Your task to perform on an android device: Open sound settings Image 0: 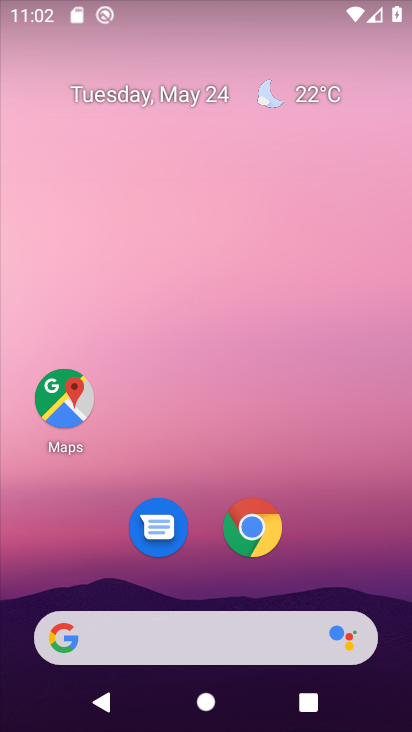
Step 0: press home button
Your task to perform on an android device: Open sound settings Image 1: 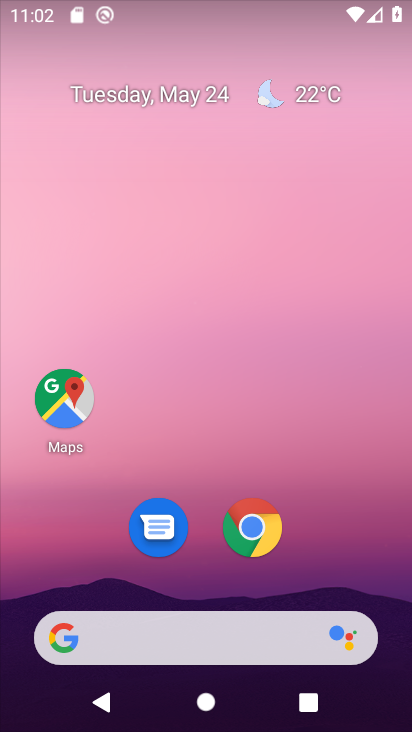
Step 1: drag from (148, 642) to (323, 92)
Your task to perform on an android device: Open sound settings Image 2: 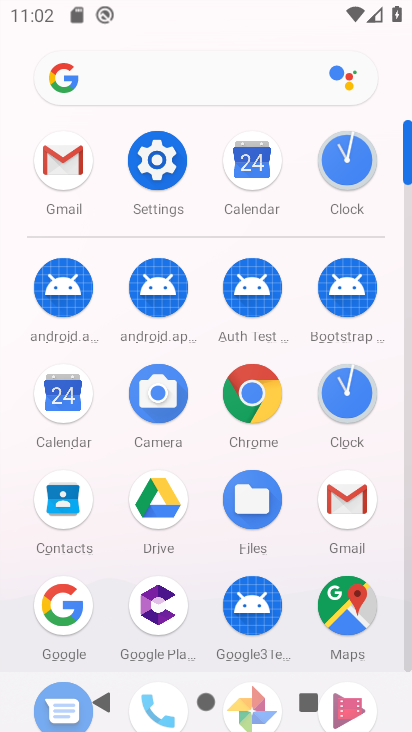
Step 2: click (172, 174)
Your task to perform on an android device: Open sound settings Image 3: 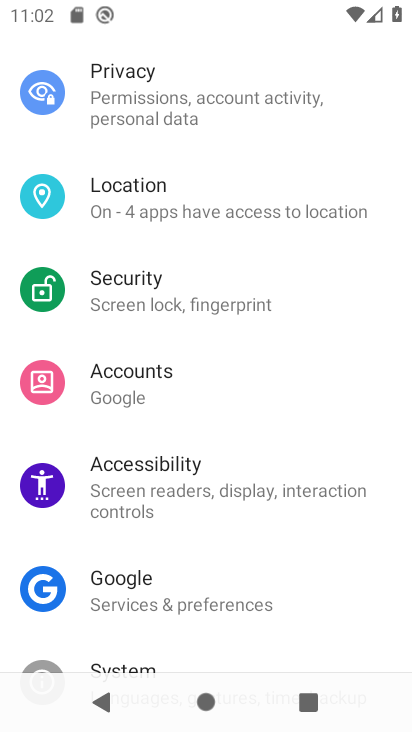
Step 3: drag from (314, 129) to (233, 573)
Your task to perform on an android device: Open sound settings Image 4: 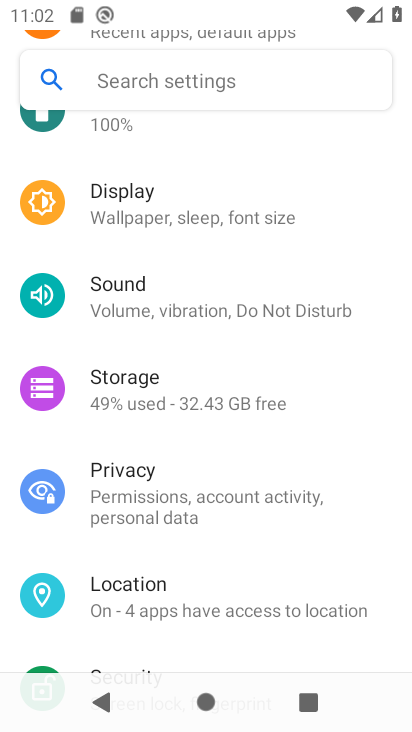
Step 4: click (163, 289)
Your task to perform on an android device: Open sound settings Image 5: 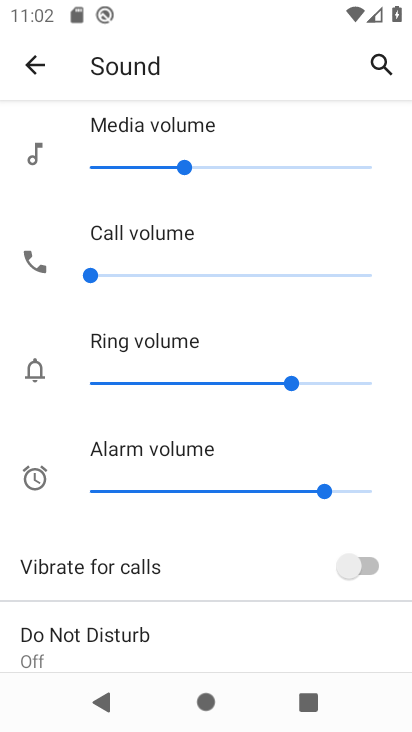
Step 5: task complete